Your task to perform on an android device: open chrome privacy settings Image 0: 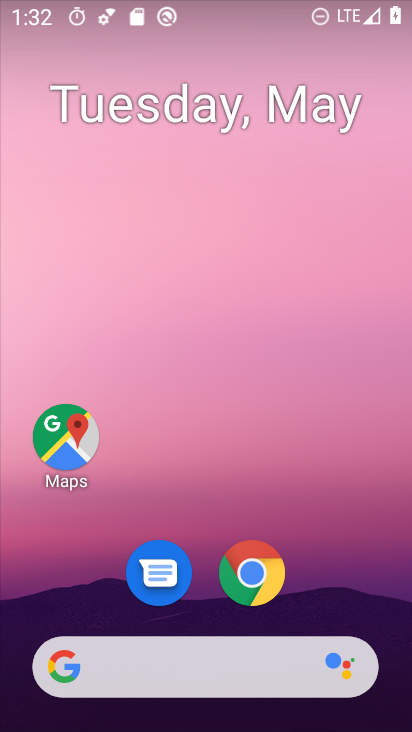
Step 0: drag from (330, 423) to (270, 45)
Your task to perform on an android device: open chrome privacy settings Image 1: 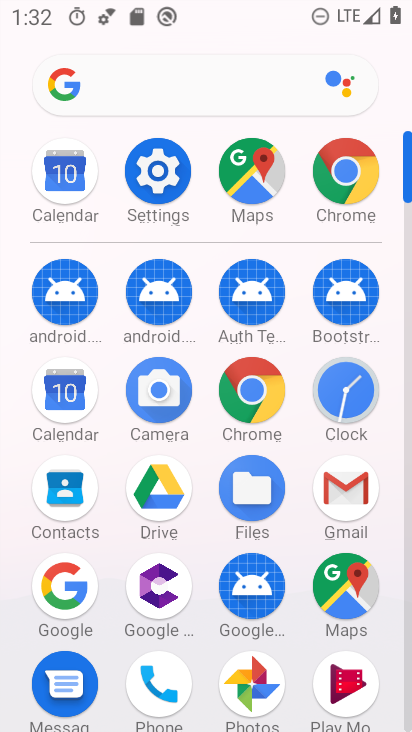
Step 1: click (147, 170)
Your task to perform on an android device: open chrome privacy settings Image 2: 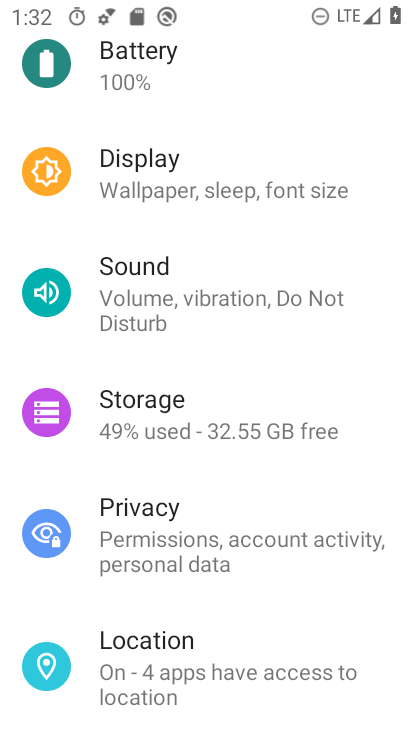
Step 2: click (204, 548)
Your task to perform on an android device: open chrome privacy settings Image 3: 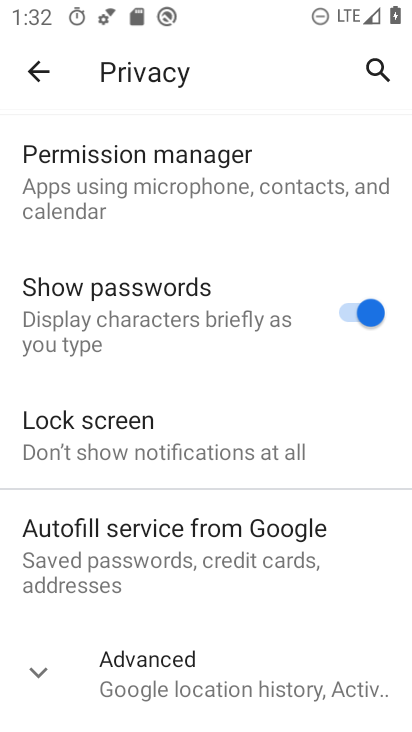
Step 3: task complete